Your task to perform on an android device: open the mobile data screen to see how much data has been used Image 0: 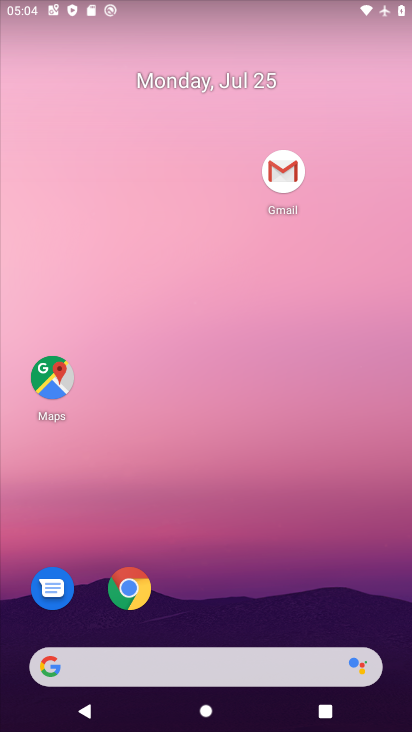
Step 0: click (160, 33)
Your task to perform on an android device: open the mobile data screen to see how much data has been used Image 1: 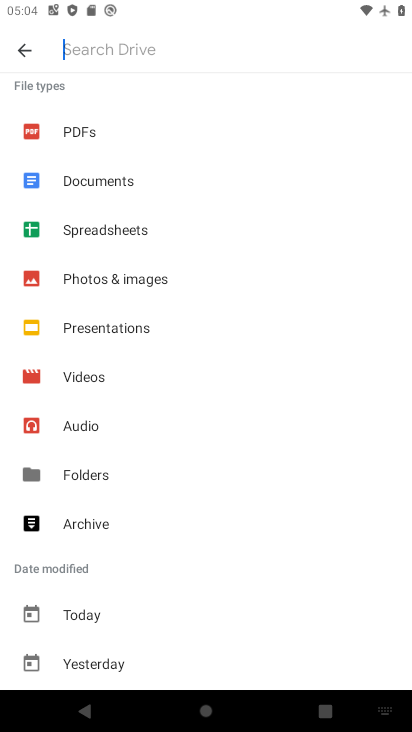
Step 1: press home button
Your task to perform on an android device: open the mobile data screen to see how much data has been used Image 2: 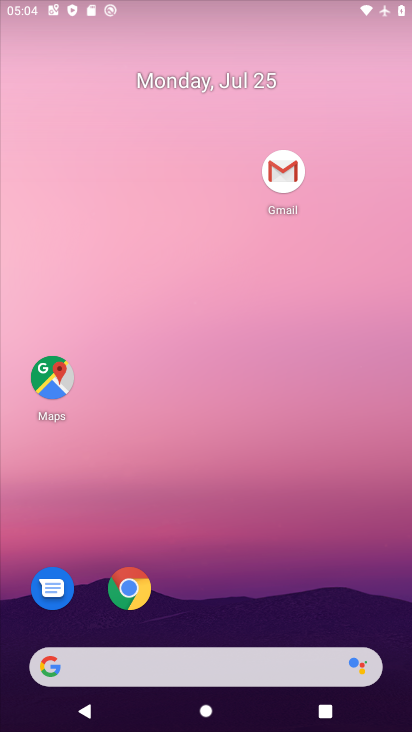
Step 2: drag from (168, 480) to (33, 6)
Your task to perform on an android device: open the mobile data screen to see how much data has been used Image 3: 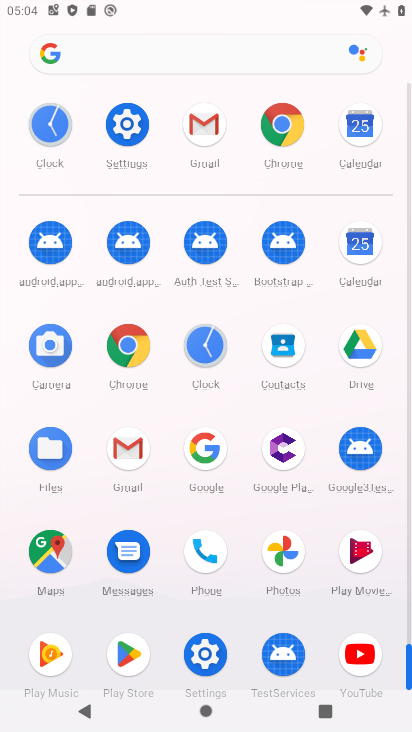
Step 3: click (137, 124)
Your task to perform on an android device: open the mobile data screen to see how much data has been used Image 4: 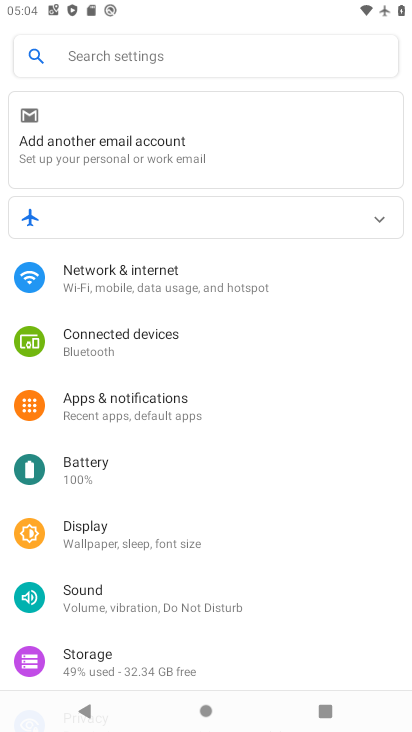
Step 4: click (113, 275)
Your task to perform on an android device: open the mobile data screen to see how much data has been used Image 5: 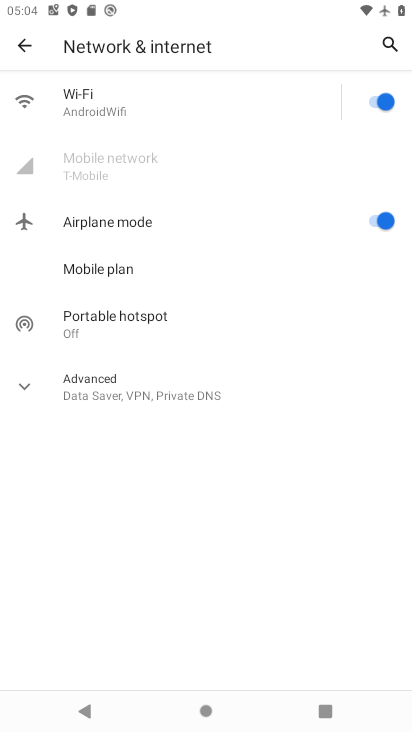
Step 5: task complete